Your task to perform on an android device: toggle show notifications on the lock screen Image 0: 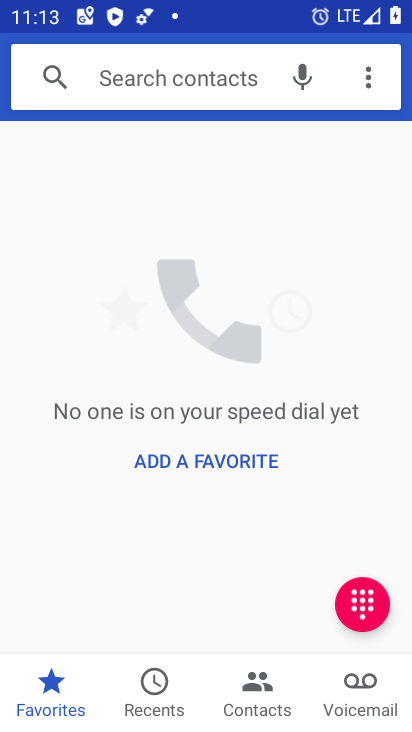
Step 0: press home button
Your task to perform on an android device: toggle show notifications on the lock screen Image 1: 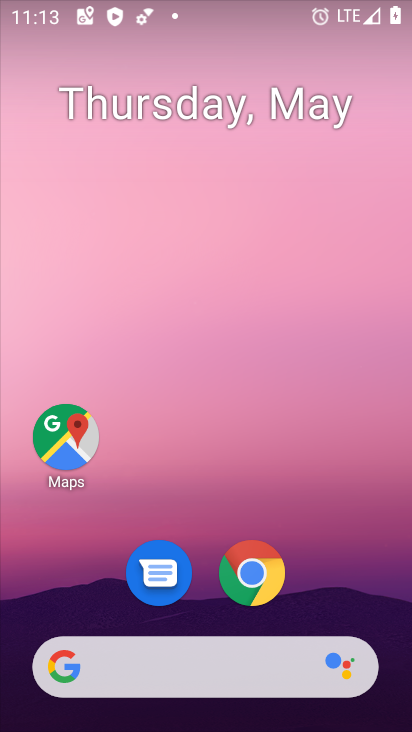
Step 1: drag from (201, 619) to (198, 208)
Your task to perform on an android device: toggle show notifications on the lock screen Image 2: 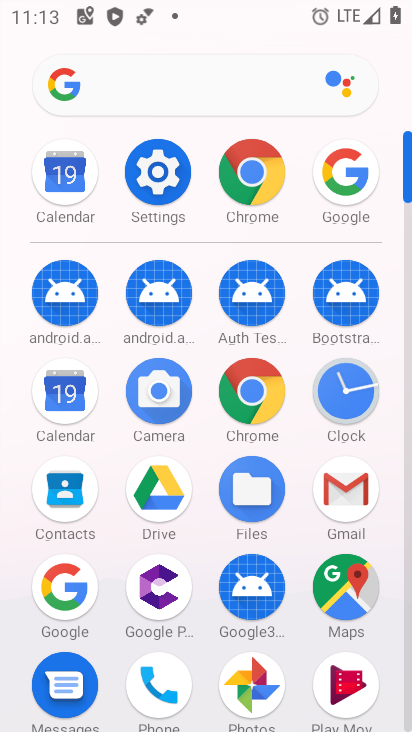
Step 2: click (168, 200)
Your task to perform on an android device: toggle show notifications on the lock screen Image 3: 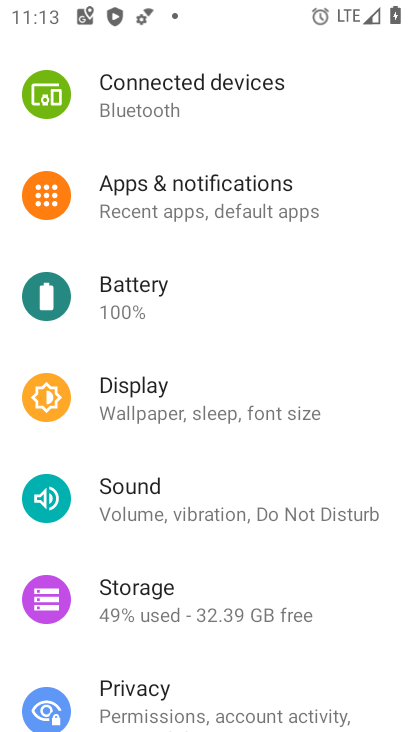
Step 3: click (188, 210)
Your task to perform on an android device: toggle show notifications on the lock screen Image 4: 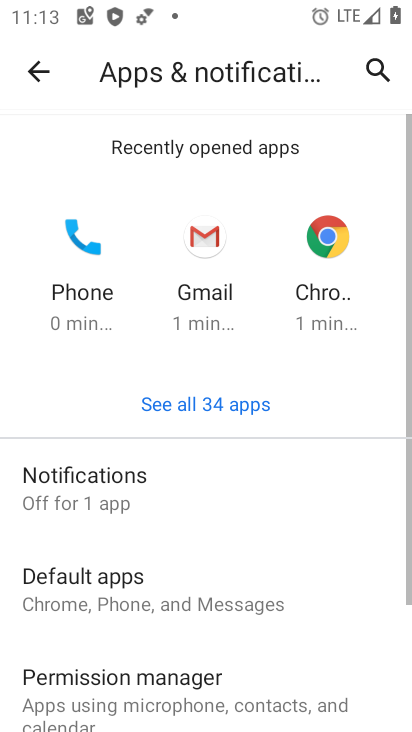
Step 4: click (129, 477)
Your task to perform on an android device: toggle show notifications on the lock screen Image 5: 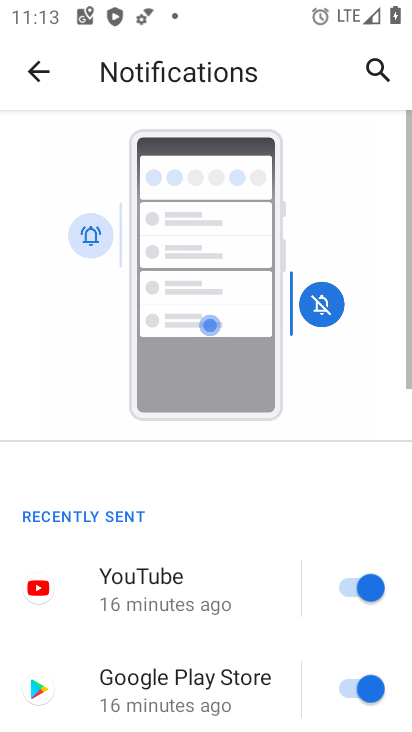
Step 5: drag from (225, 633) to (231, 328)
Your task to perform on an android device: toggle show notifications on the lock screen Image 6: 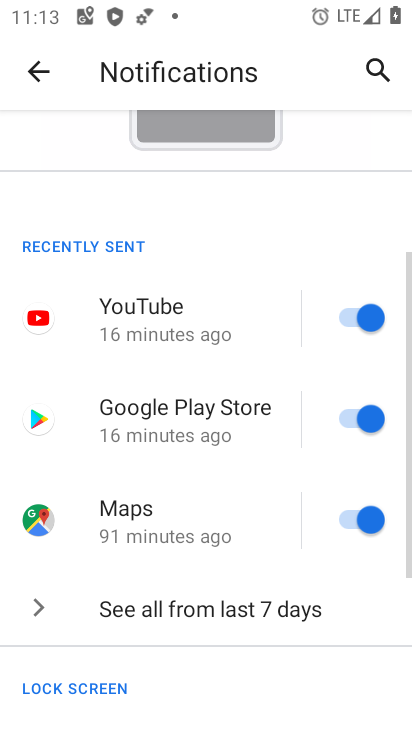
Step 6: drag from (301, 622) to (275, 375)
Your task to perform on an android device: toggle show notifications on the lock screen Image 7: 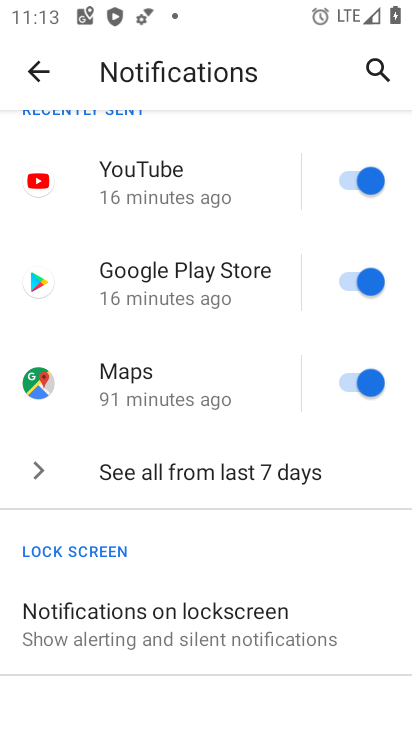
Step 7: click (260, 613)
Your task to perform on an android device: toggle show notifications on the lock screen Image 8: 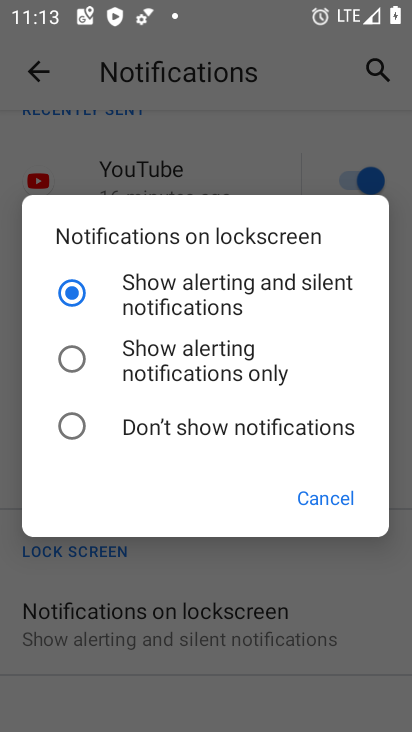
Step 8: click (200, 421)
Your task to perform on an android device: toggle show notifications on the lock screen Image 9: 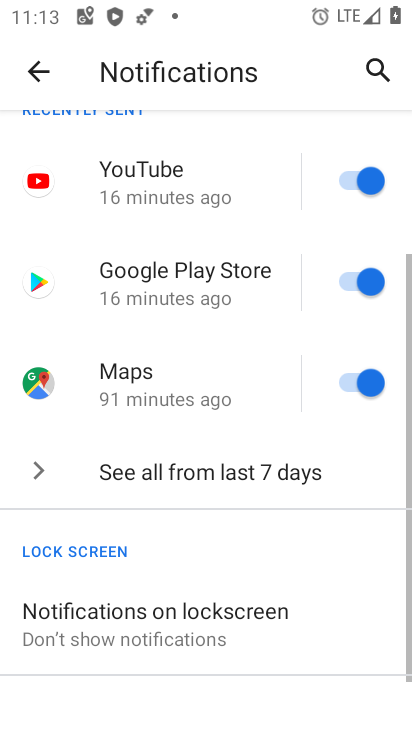
Step 9: task complete